Your task to perform on an android device: Open Amazon Image 0: 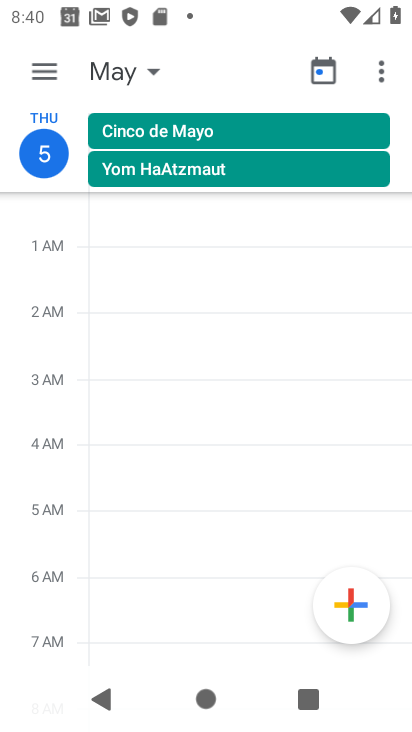
Step 0: press home button
Your task to perform on an android device: Open Amazon Image 1: 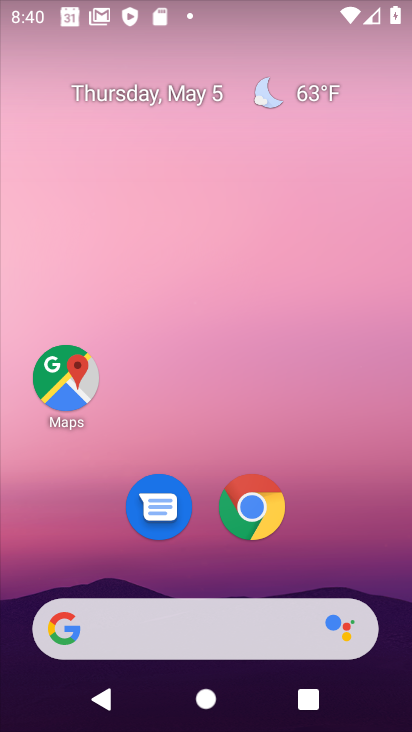
Step 1: drag from (320, 492) to (293, 27)
Your task to perform on an android device: Open Amazon Image 2: 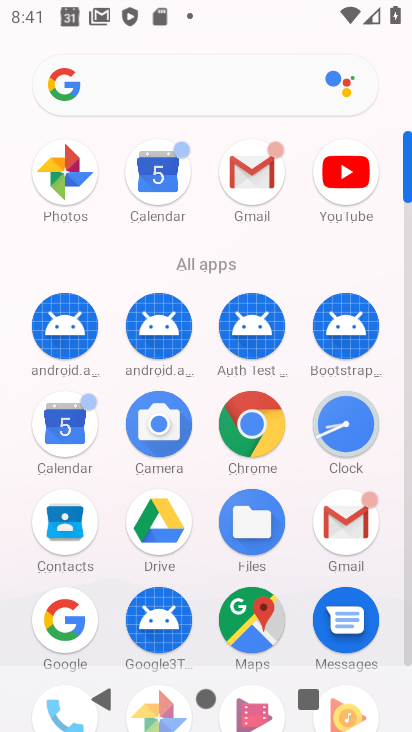
Step 2: click (246, 425)
Your task to perform on an android device: Open Amazon Image 3: 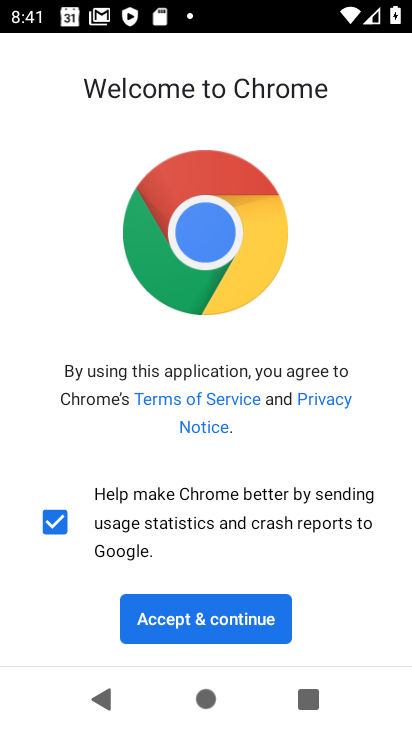
Step 3: click (208, 609)
Your task to perform on an android device: Open Amazon Image 4: 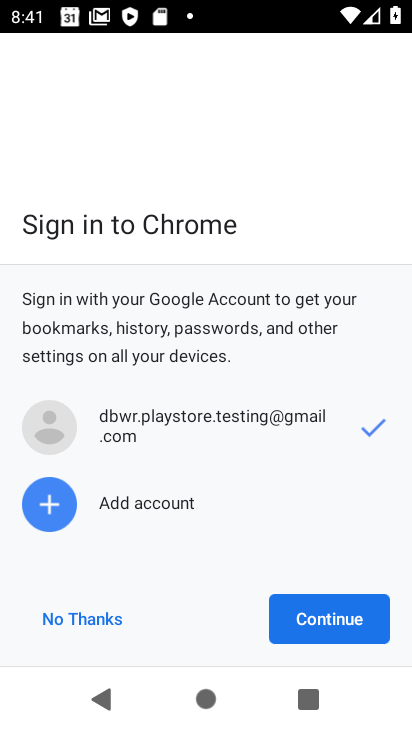
Step 4: click (324, 621)
Your task to perform on an android device: Open Amazon Image 5: 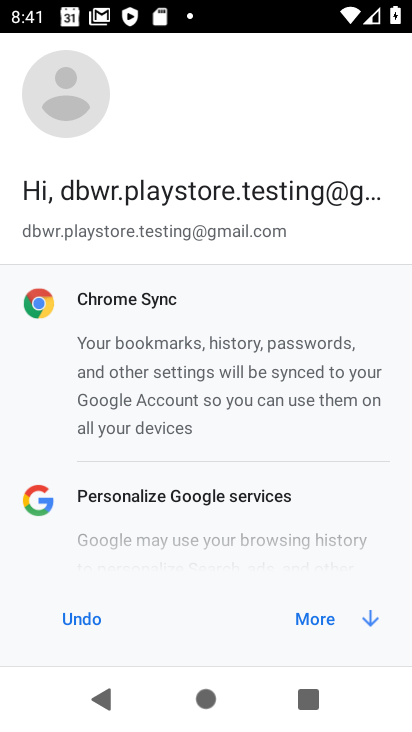
Step 5: click (346, 606)
Your task to perform on an android device: Open Amazon Image 6: 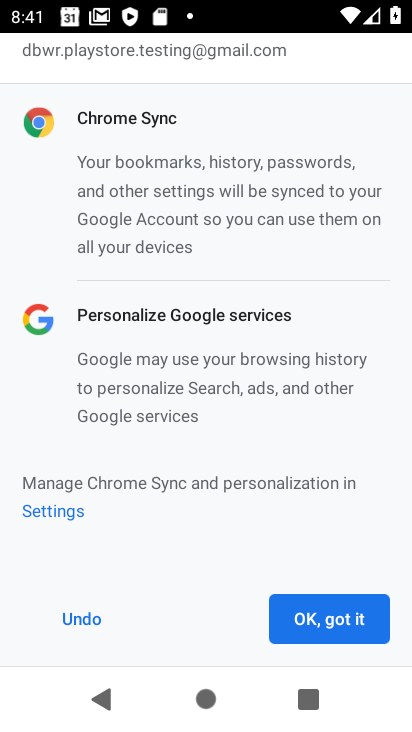
Step 6: click (343, 617)
Your task to perform on an android device: Open Amazon Image 7: 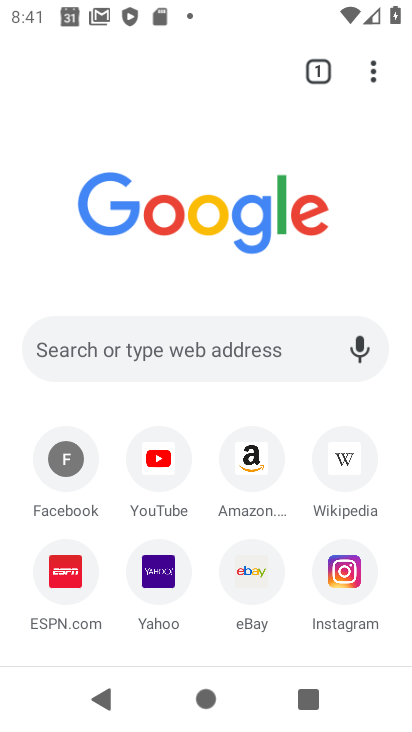
Step 7: click (238, 451)
Your task to perform on an android device: Open Amazon Image 8: 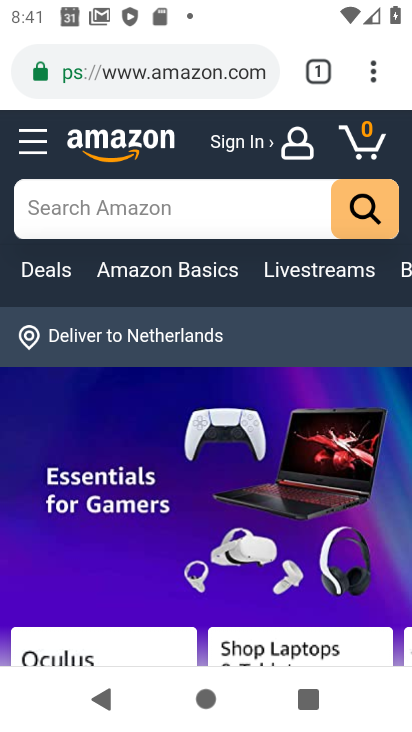
Step 8: task complete